Your task to perform on an android device: toggle notification dots Image 0: 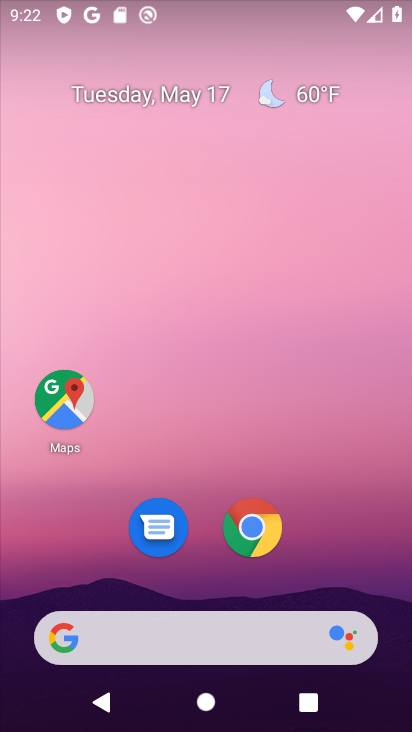
Step 0: drag from (200, 525) to (236, 42)
Your task to perform on an android device: toggle notification dots Image 1: 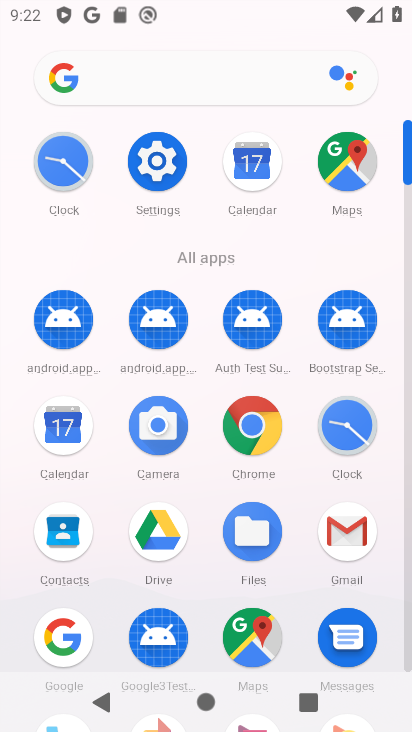
Step 1: click (153, 142)
Your task to perform on an android device: toggle notification dots Image 2: 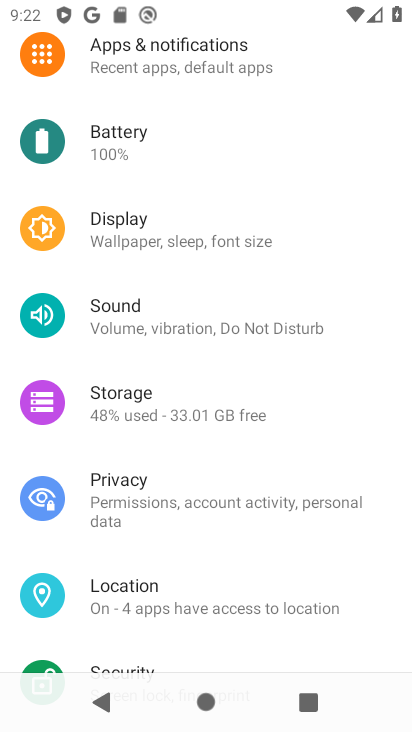
Step 2: click (204, 62)
Your task to perform on an android device: toggle notification dots Image 3: 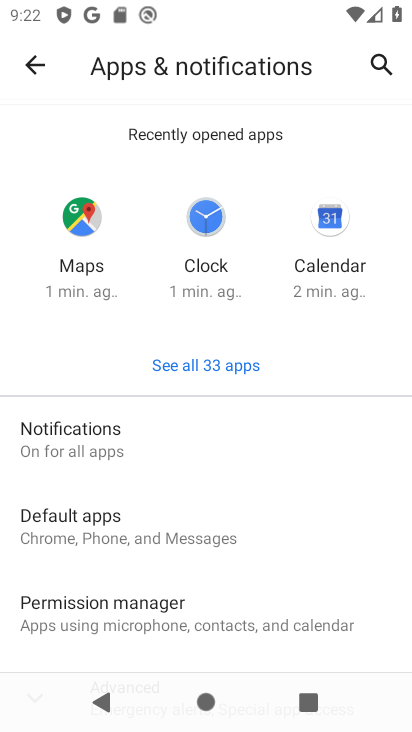
Step 3: click (135, 444)
Your task to perform on an android device: toggle notification dots Image 4: 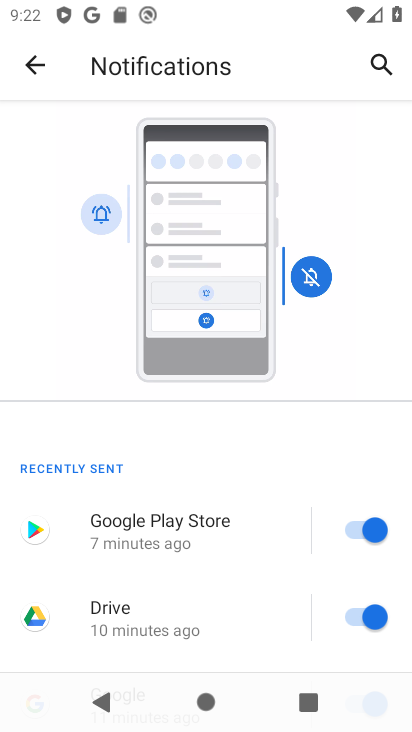
Step 4: drag from (204, 632) to (251, 204)
Your task to perform on an android device: toggle notification dots Image 5: 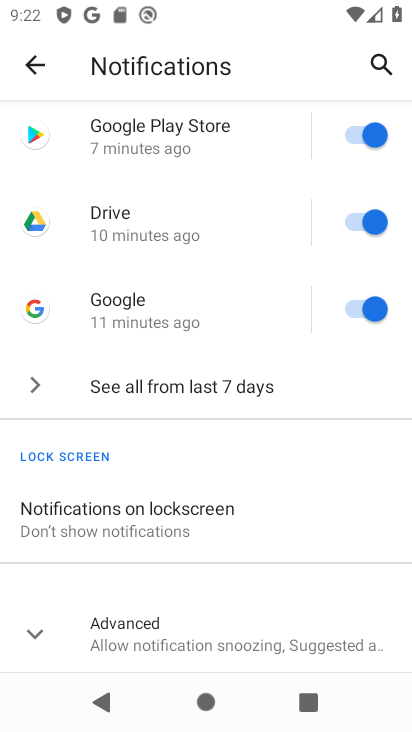
Step 5: click (193, 623)
Your task to perform on an android device: toggle notification dots Image 6: 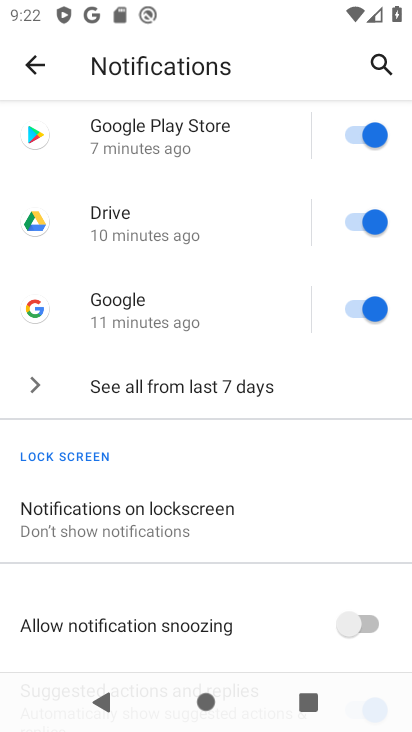
Step 6: drag from (222, 473) to (265, 146)
Your task to perform on an android device: toggle notification dots Image 7: 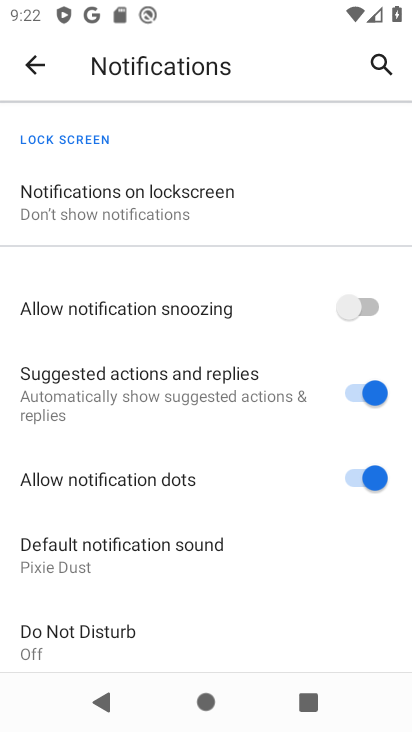
Step 7: click (347, 485)
Your task to perform on an android device: toggle notification dots Image 8: 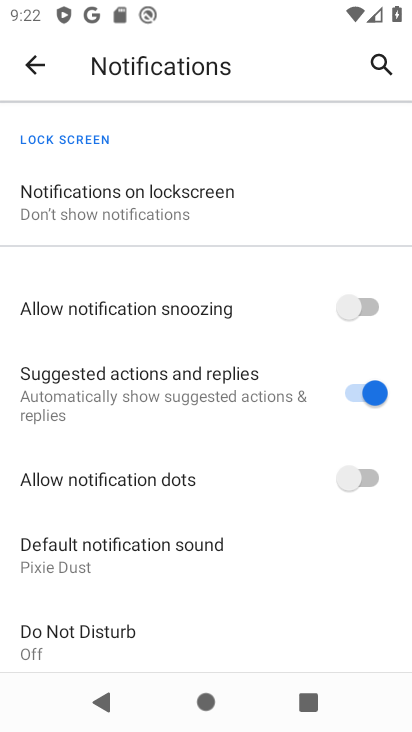
Step 8: task complete